Your task to perform on an android device: turn off notifications in google photos Image 0: 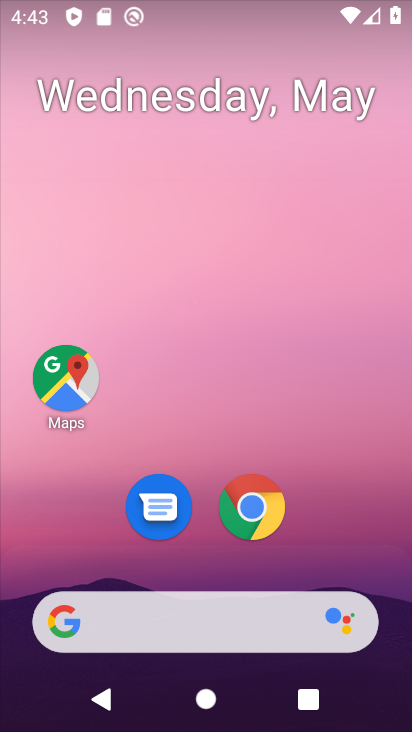
Step 0: drag from (324, 463) to (255, 89)
Your task to perform on an android device: turn off notifications in google photos Image 1: 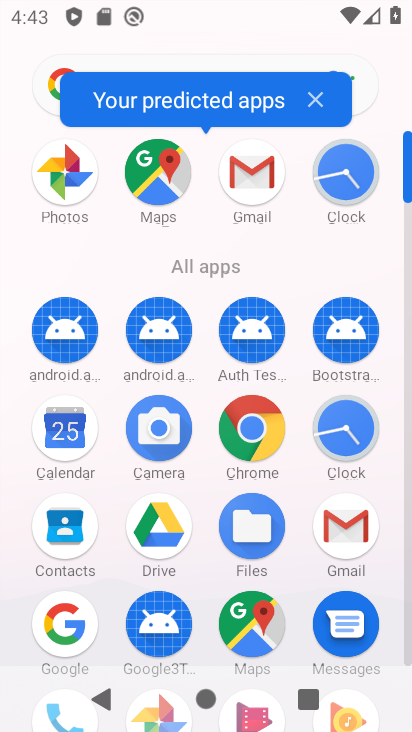
Step 1: drag from (289, 583) to (298, 298)
Your task to perform on an android device: turn off notifications in google photos Image 2: 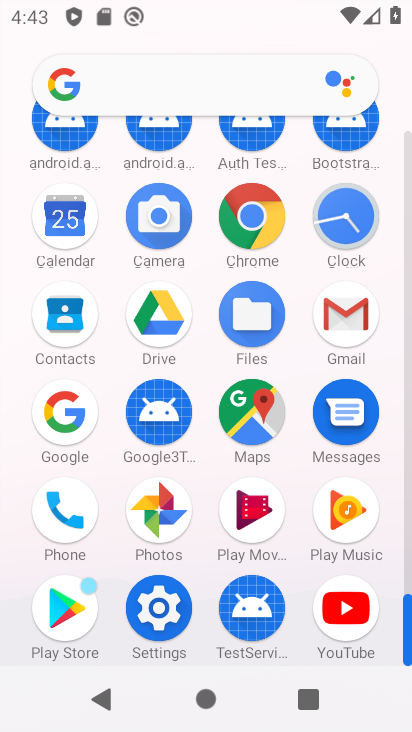
Step 2: click (161, 507)
Your task to perform on an android device: turn off notifications in google photos Image 3: 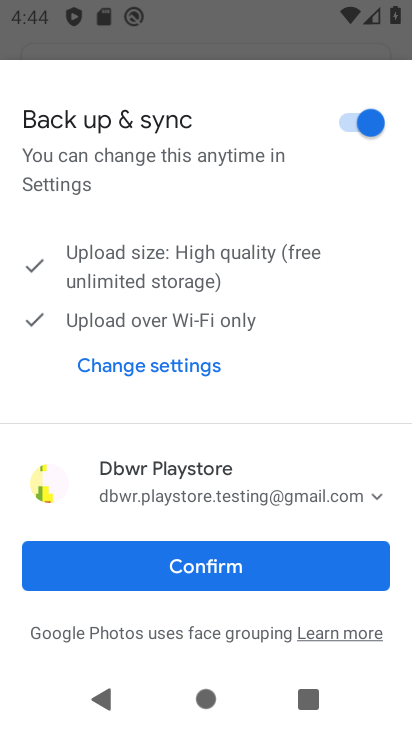
Step 3: click (243, 556)
Your task to perform on an android device: turn off notifications in google photos Image 4: 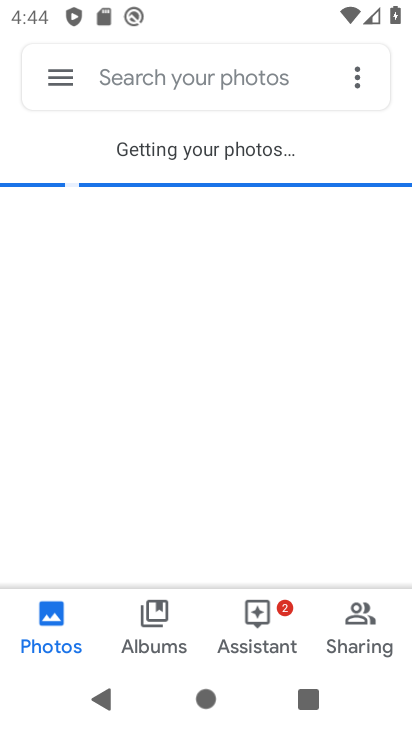
Step 4: click (56, 81)
Your task to perform on an android device: turn off notifications in google photos Image 5: 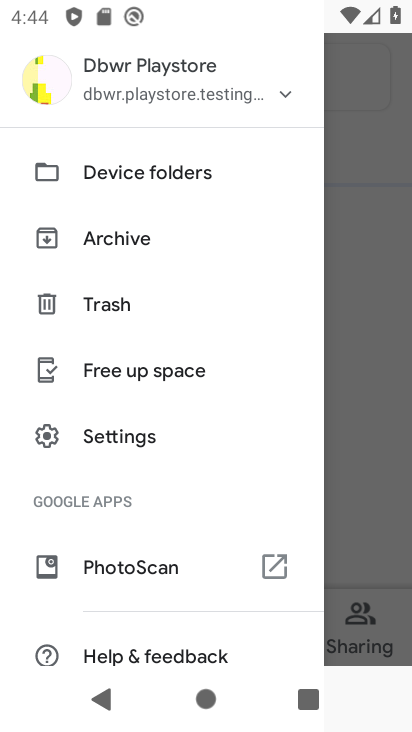
Step 5: click (128, 435)
Your task to perform on an android device: turn off notifications in google photos Image 6: 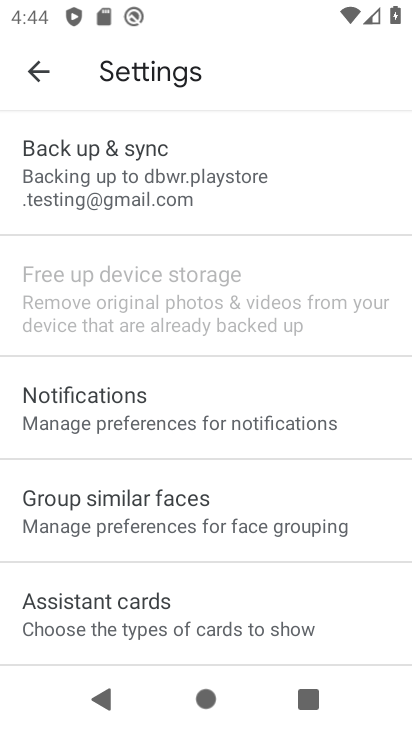
Step 6: click (153, 416)
Your task to perform on an android device: turn off notifications in google photos Image 7: 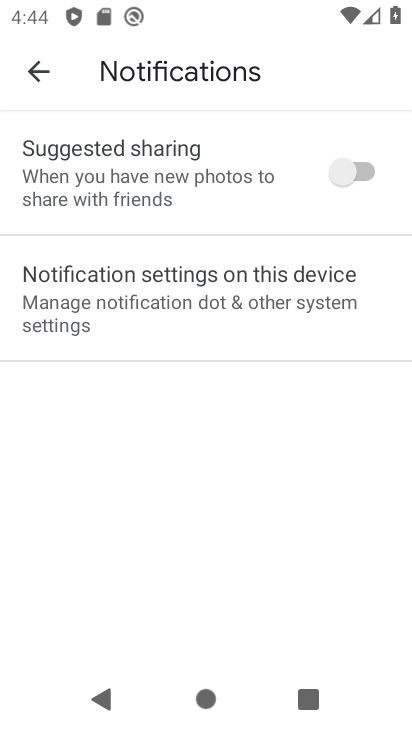
Step 7: click (163, 299)
Your task to perform on an android device: turn off notifications in google photos Image 8: 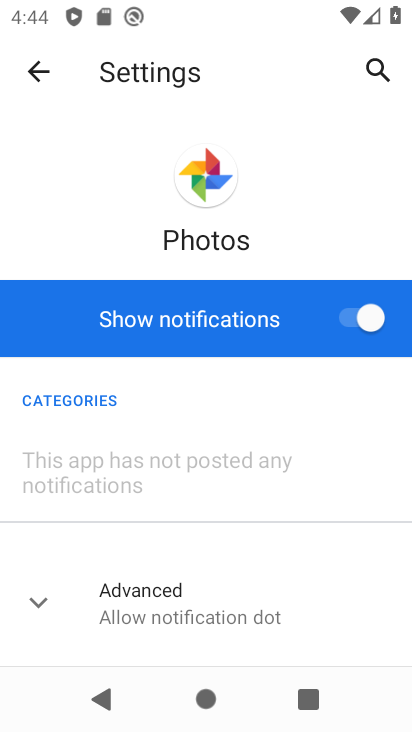
Step 8: click (347, 313)
Your task to perform on an android device: turn off notifications in google photos Image 9: 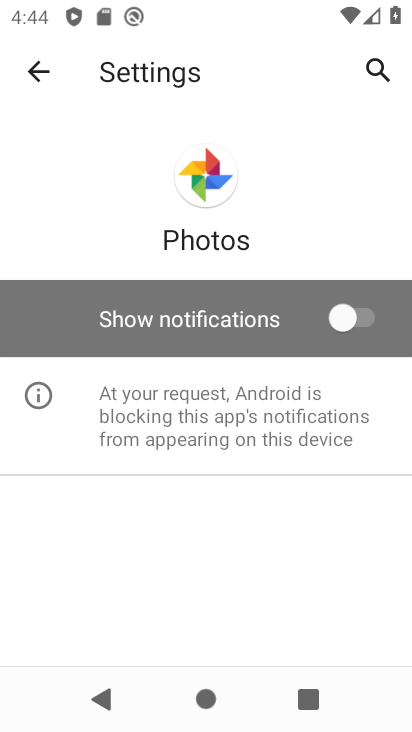
Step 9: task complete